Your task to perform on an android device: toggle notifications settings in the gmail app Image 0: 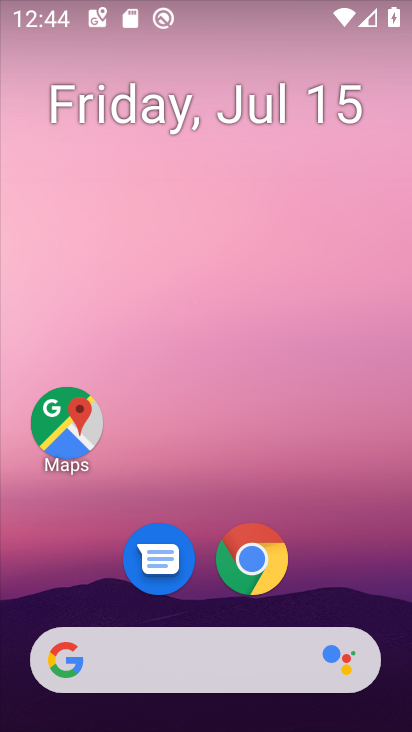
Step 0: drag from (378, 593) to (378, 138)
Your task to perform on an android device: toggle notifications settings in the gmail app Image 1: 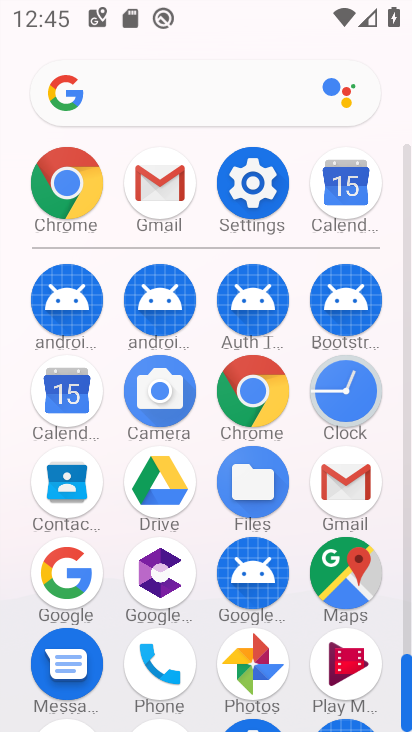
Step 1: click (344, 486)
Your task to perform on an android device: toggle notifications settings in the gmail app Image 2: 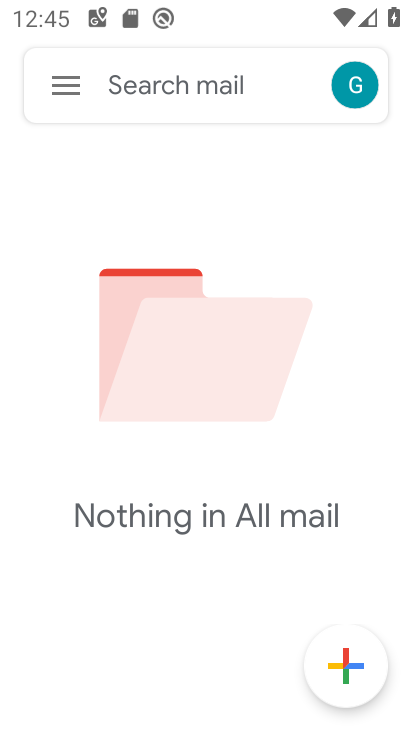
Step 2: click (75, 83)
Your task to perform on an android device: toggle notifications settings in the gmail app Image 3: 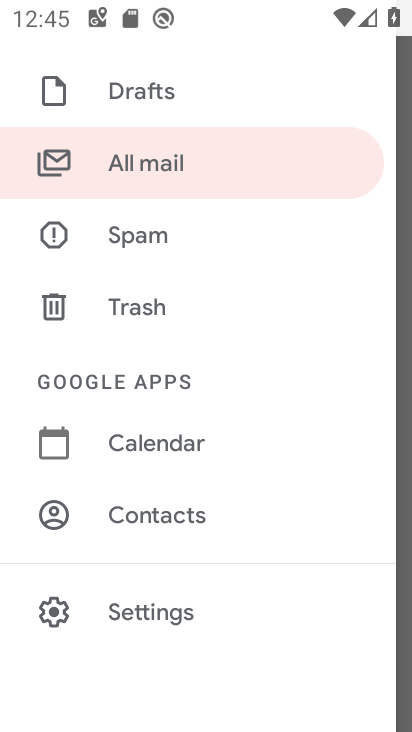
Step 3: drag from (289, 291) to (310, 403)
Your task to perform on an android device: toggle notifications settings in the gmail app Image 4: 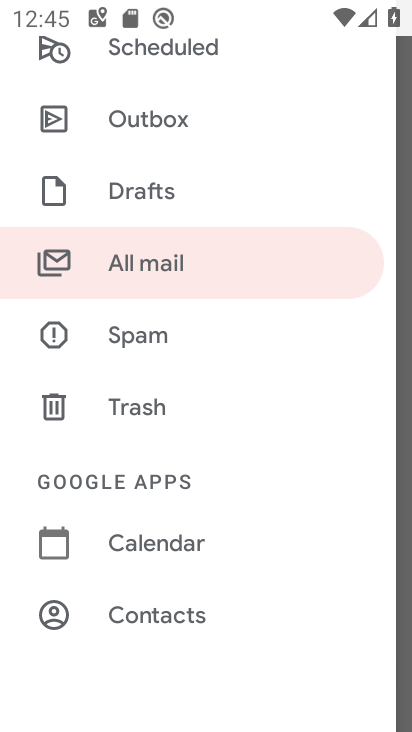
Step 4: drag from (320, 315) to (322, 398)
Your task to perform on an android device: toggle notifications settings in the gmail app Image 5: 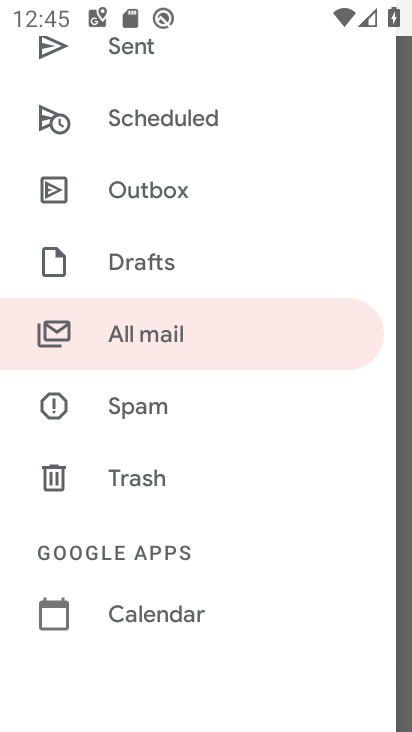
Step 5: drag from (320, 269) to (322, 383)
Your task to perform on an android device: toggle notifications settings in the gmail app Image 6: 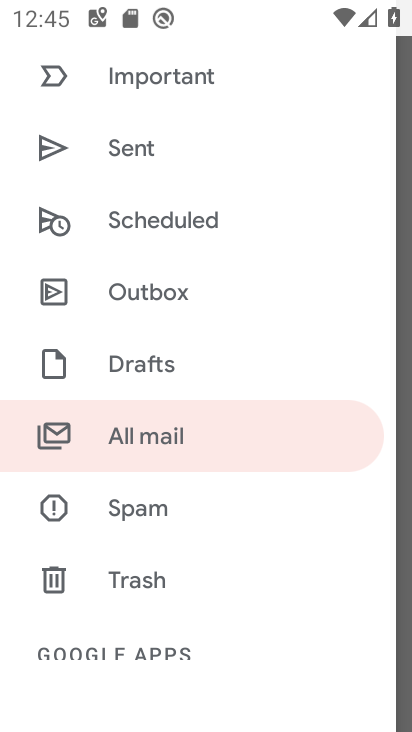
Step 6: drag from (323, 290) to (319, 375)
Your task to perform on an android device: toggle notifications settings in the gmail app Image 7: 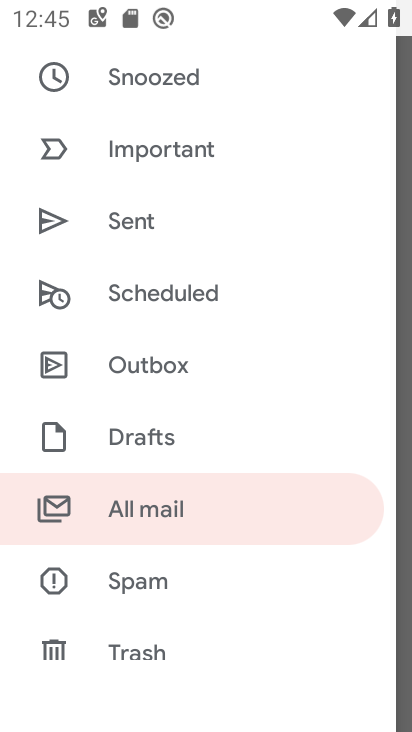
Step 7: drag from (318, 416) to (322, 327)
Your task to perform on an android device: toggle notifications settings in the gmail app Image 8: 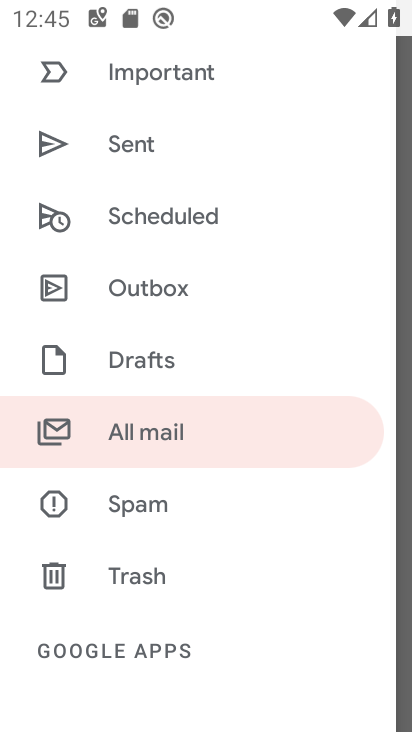
Step 8: drag from (322, 447) to (321, 387)
Your task to perform on an android device: toggle notifications settings in the gmail app Image 9: 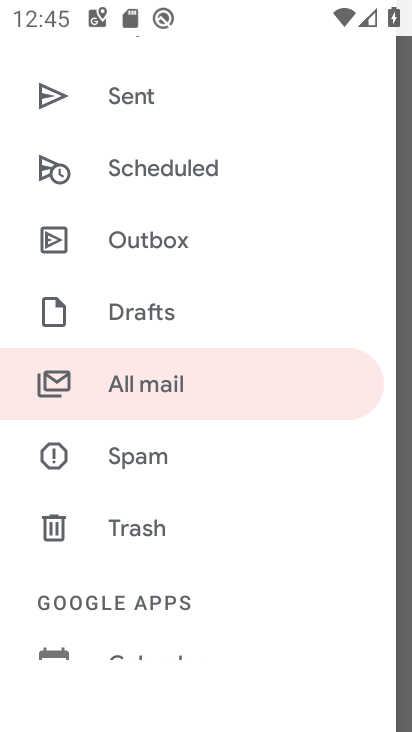
Step 9: drag from (317, 440) to (313, 385)
Your task to perform on an android device: toggle notifications settings in the gmail app Image 10: 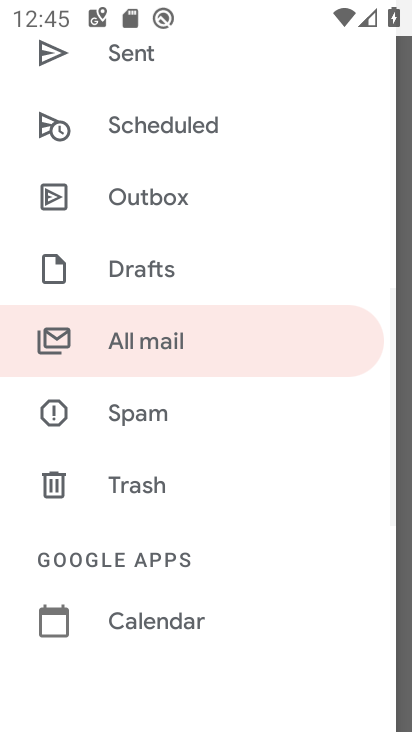
Step 10: drag from (266, 458) to (270, 351)
Your task to perform on an android device: toggle notifications settings in the gmail app Image 11: 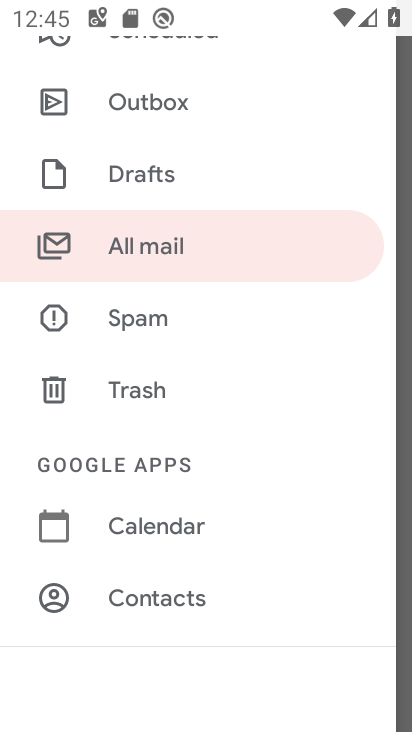
Step 11: drag from (284, 490) to (293, 362)
Your task to perform on an android device: toggle notifications settings in the gmail app Image 12: 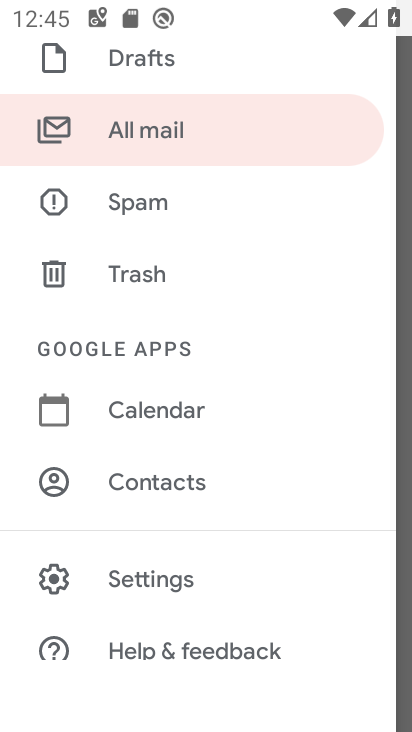
Step 12: click (265, 571)
Your task to perform on an android device: toggle notifications settings in the gmail app Image 13: 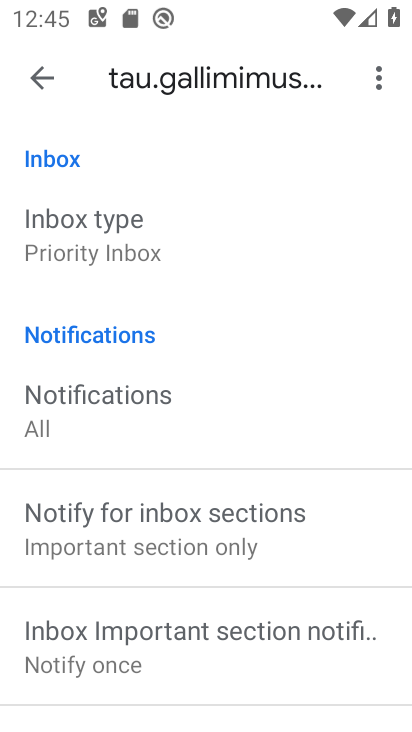
Step 13: drag from (362, 444) to (371, 365)
Your task to perform on an android device: toggle notifications settings in the gmail app Image 14: 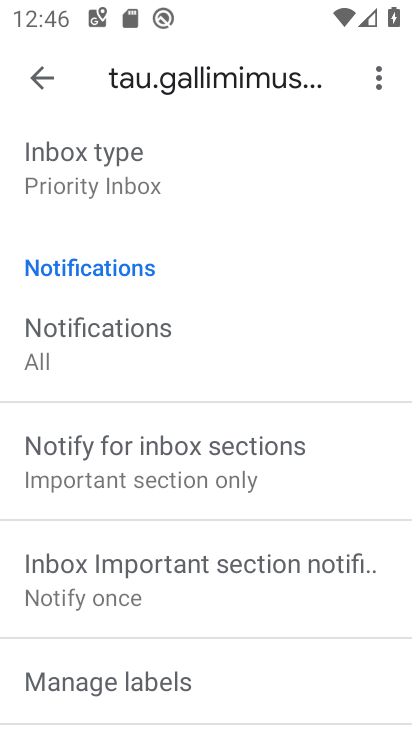
Step 14: drag from (362, 452) to (363, 359)
Your task to perform on an android device: toggle notifications settings in the gmail app Image 15: 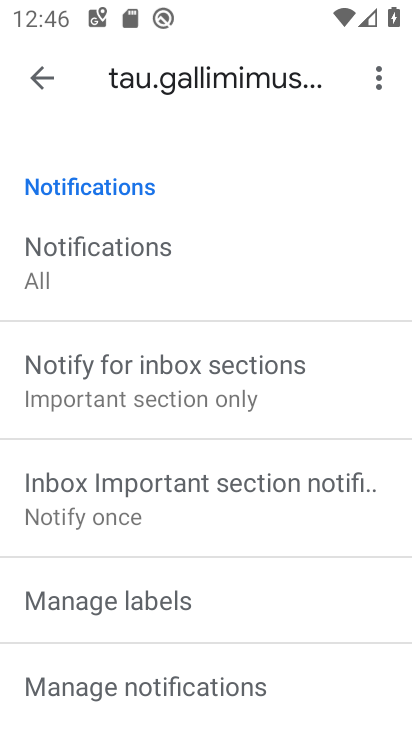
Step 15: drag from (351, 445) to (357, 370)
Your task to perform on an android device: toggle notifications settings in the gmail app Image 16: 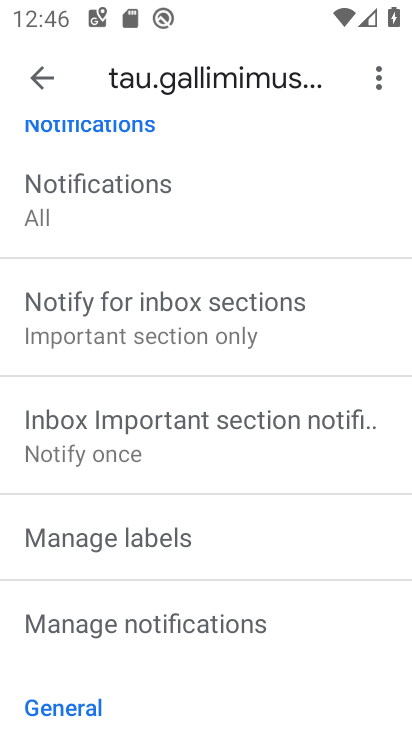
Step 16: drag from (351, 446) to (352, 370)
Your task to perform on an android device: toggle notifications settings in the gmail app Image 17: 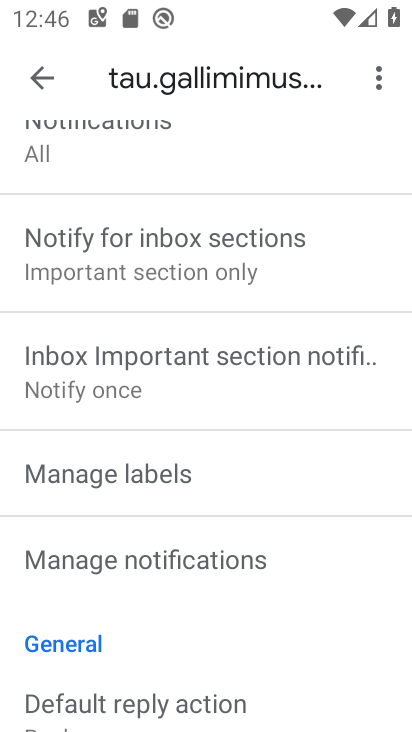
Step 17: drag from (342, 411) to (346, 350)
Your task to perform on an android device: toggle notifications settings in the gmail app Image 18: 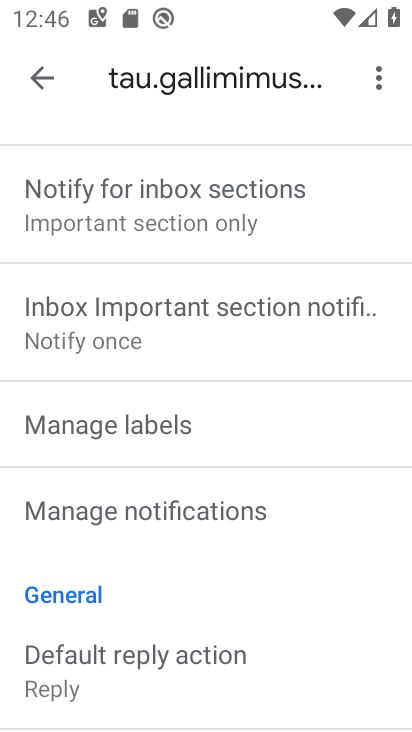
Step 18: click (336, 500)
Your task to perform on an android device: toggle notifications settings in the gmail app Image 19: 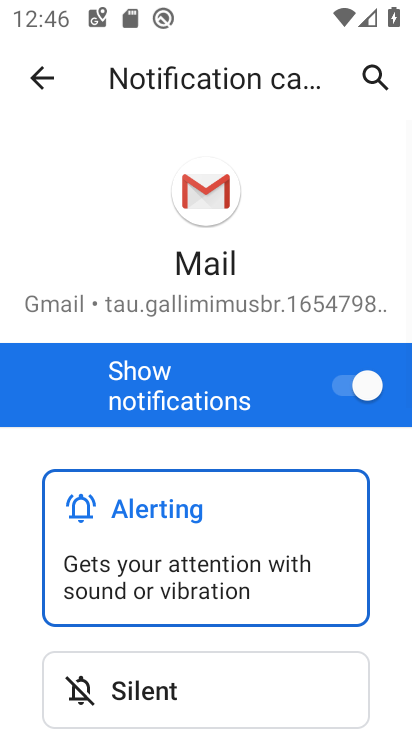
Step 19: click (363, 394)
Your task to perform on an android device: toggle notifications settings in the gmail app Image 20: 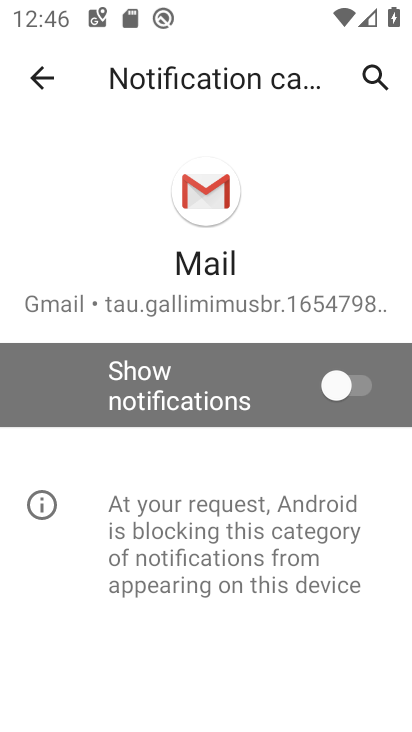
Step 20: task complete